Your task to perform on an android device: find snoozed emails in the gmail app Image 0: 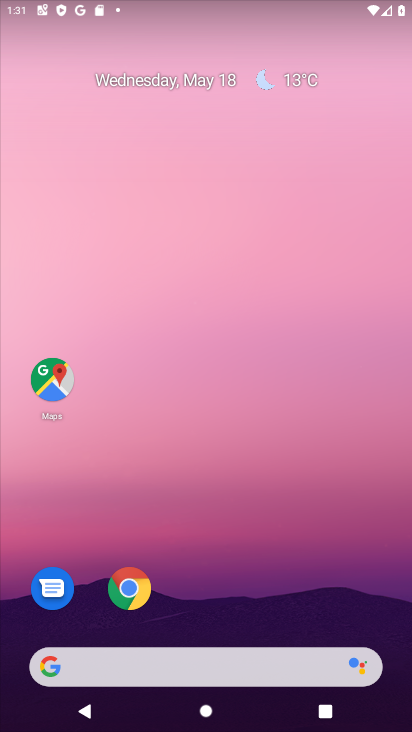
Step 0: drag from (227, 582) to (307, 32)
Your task to perform on an android device: find snoozed emails in the gmail app Image 1: 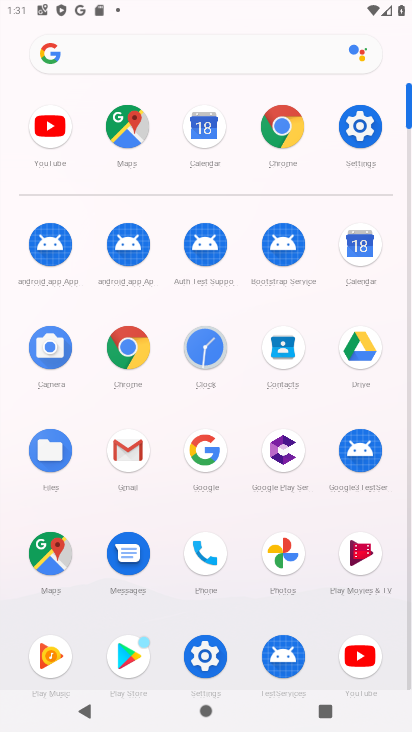
Step 1: click (134, 443)
Your task to perform on an android device: find snoozed emails in the gmail app Image 2: 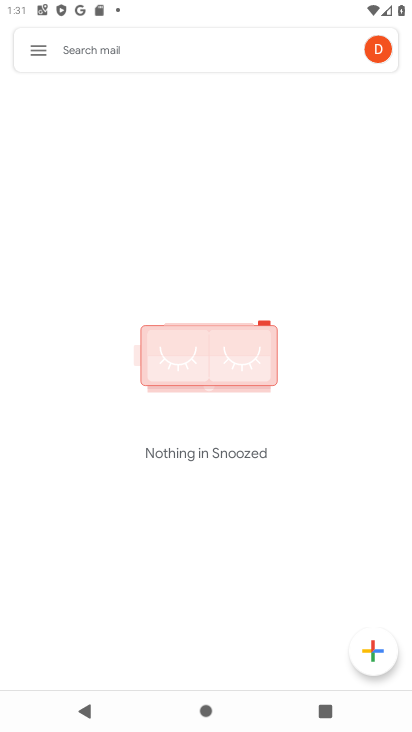
Step 2: click (36, 46)
Your task to perform on an android device: find snoozed emails in the gmail app Image 3: 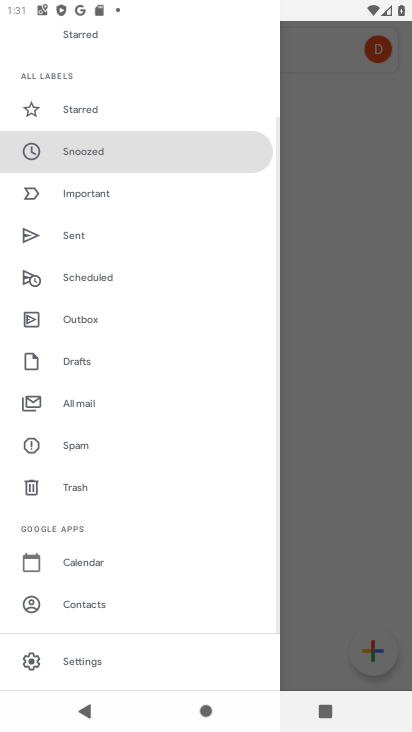
Step 3: click (100, 151)
Your task to perform on an android device: find snoozed emails in the gmail app Image 4: 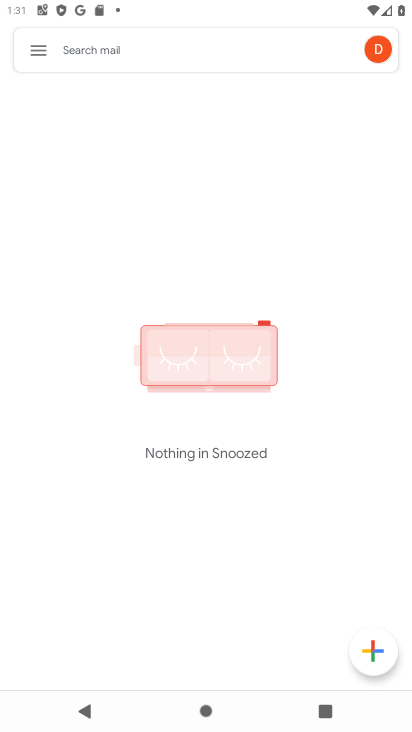
Step 4: task complete